Your task to perform on an android device: Open Wikipedia Image 0: 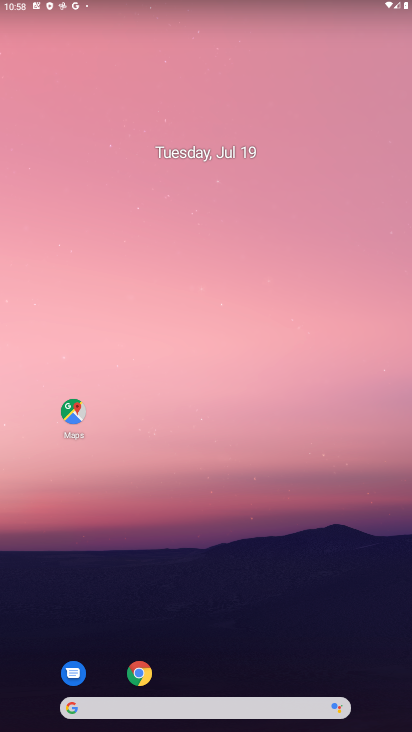
Step 0: drag from (236, 682) to (235, 89)
Your task to perform on an android device: Open Wikipedia Image 1: 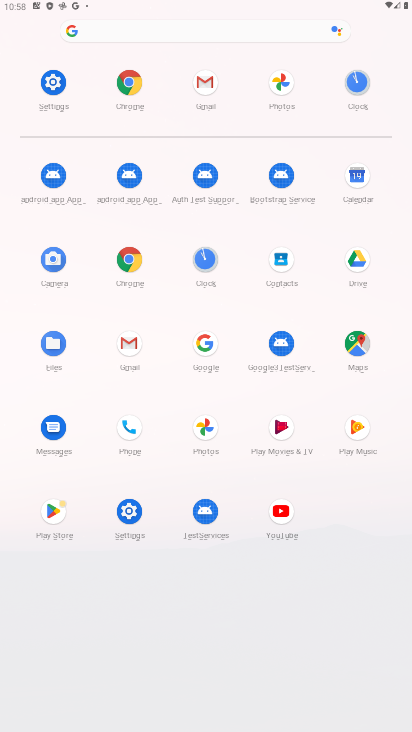
Step 1: click (219, 32)
Your task to perform on an android device: Open Wikipedia Image 2: 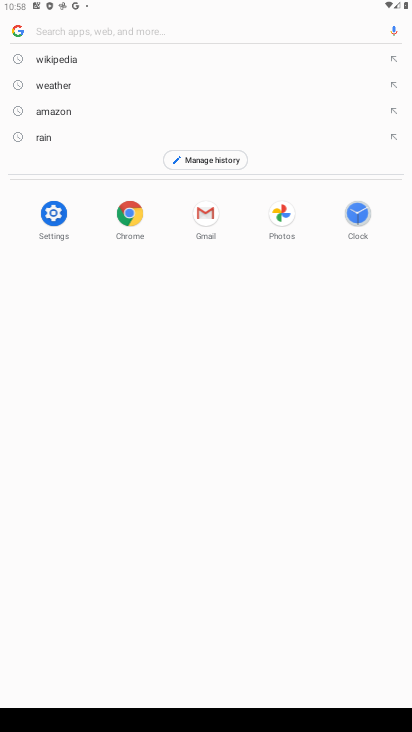
Step 2: type "wikipeda"
Your task to perform on an android device: Open Wikipedia Image 3: 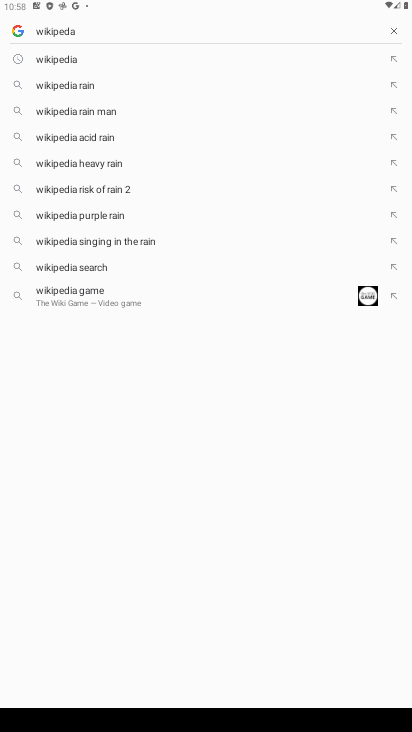
Step 3: click (85, 69)
Your task to perform on an android device: Open Wikipedia Image 4: 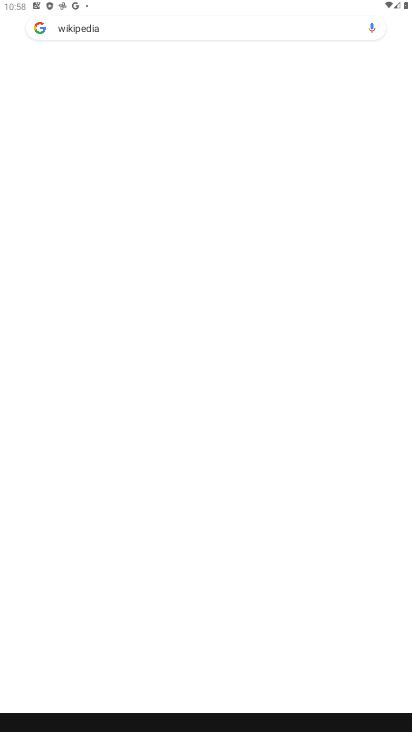
Step 4: task complete